Your task to perform on an android device: See recent photos Image 0: 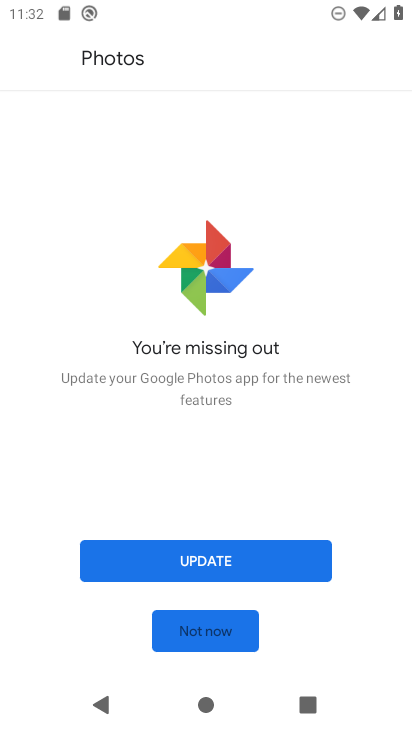
Step 0: press home button
Your task to perform on an android device: See recent photos Image 1: 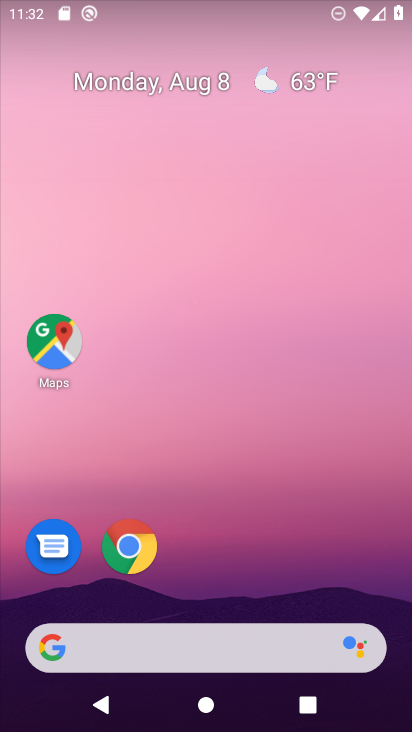
Step 1: drag from (226, 605) to (253, 38)
Your task to perform on an android device: See recent photos Image 2: 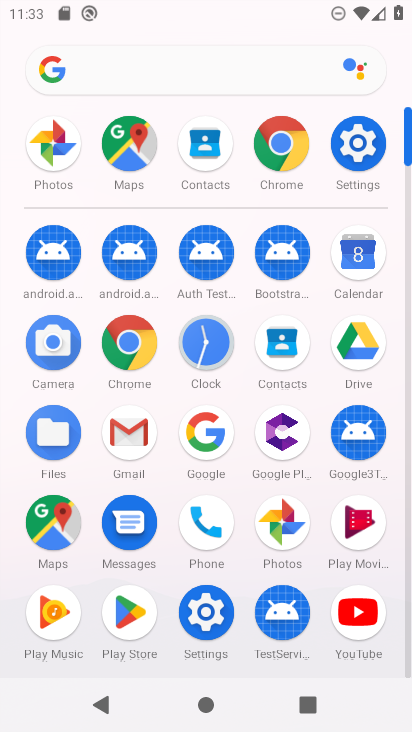
Step 2: click (277, 515)
Your task to perform on an android device: See recent photos Image 3: 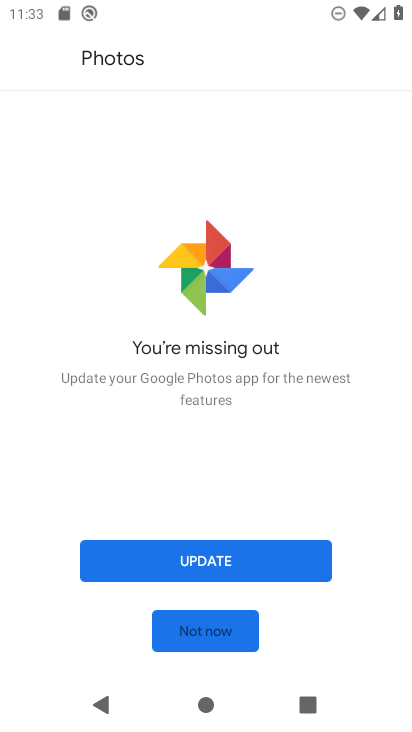
Step 3: click (208, 557)
Your task to perform on an android device: See recent photos Image 4: 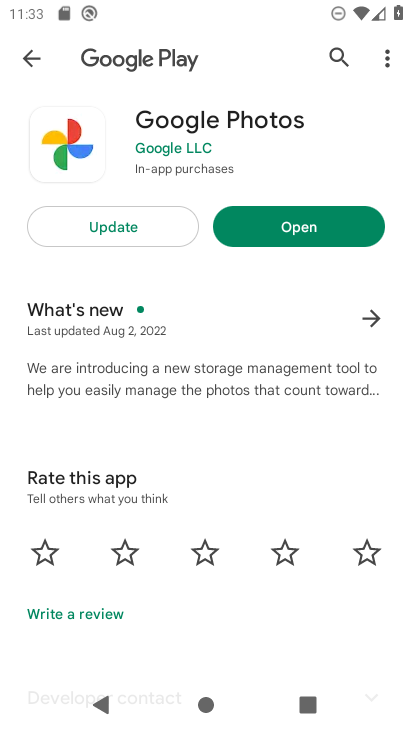
Step 4: click (118, 224)
Your task to perform on an android device: See recent photos Image 5: 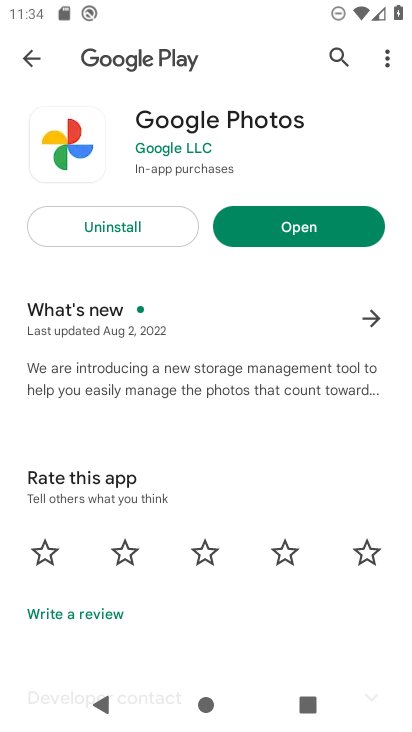
Step 5: click (301, 227)
Your task to perform on an android device: See recent photos Image 6: 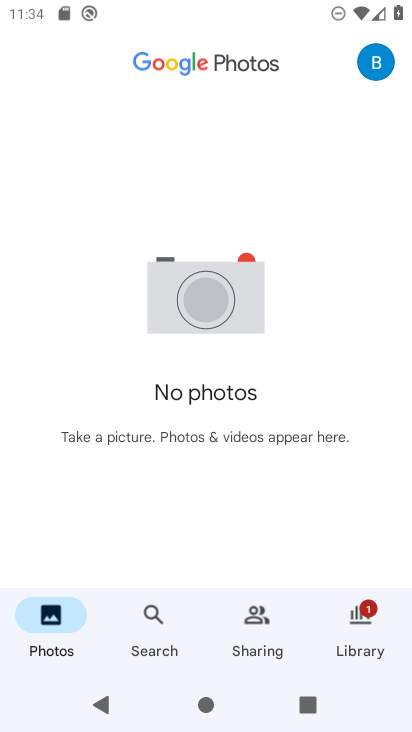
Step 6: task complete